Your task to perform on an android device: turn on location history Image 0: 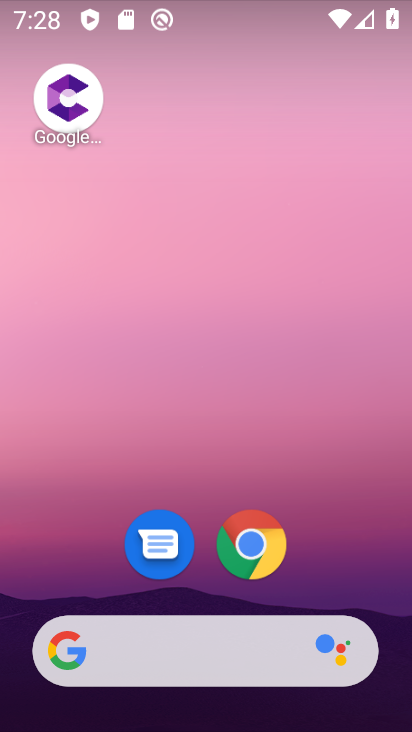
Step 0: drag from (334, 563) to (257, 98)
Your task to perform on an android device: turn on location history Image 1: 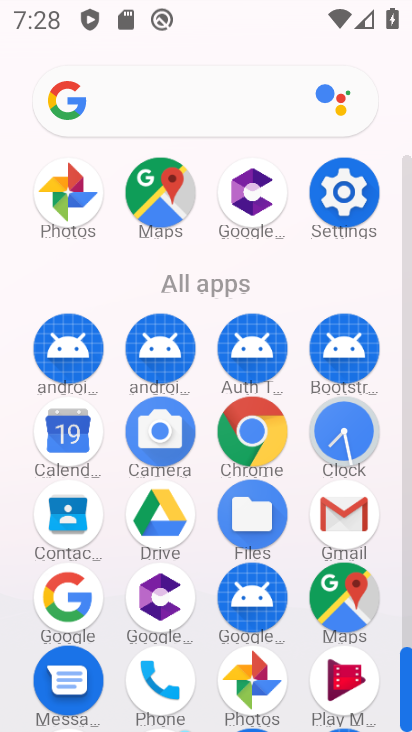
Step 1: click (345, 194)
Your task to perform on an android device: turn on location history Image 2: 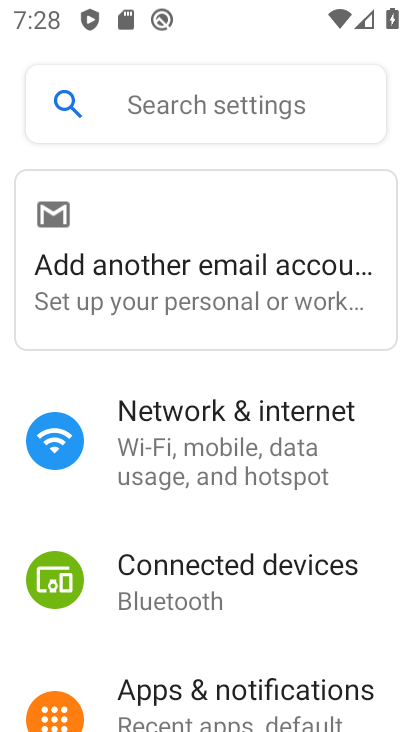
Step 2: drag from (214, 529) to (236, 320)
Your task to perform on an android device: turn on location history Image 3: 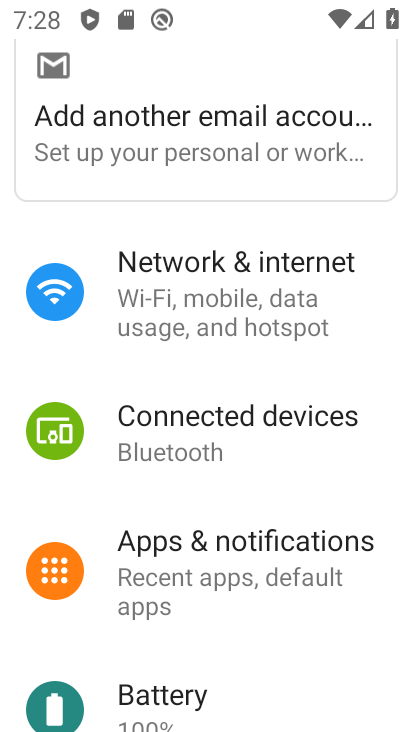
Step 3: drag from (201, 489) to (265, 298)
Your task to perform on an android device: turn on location history Image 4: 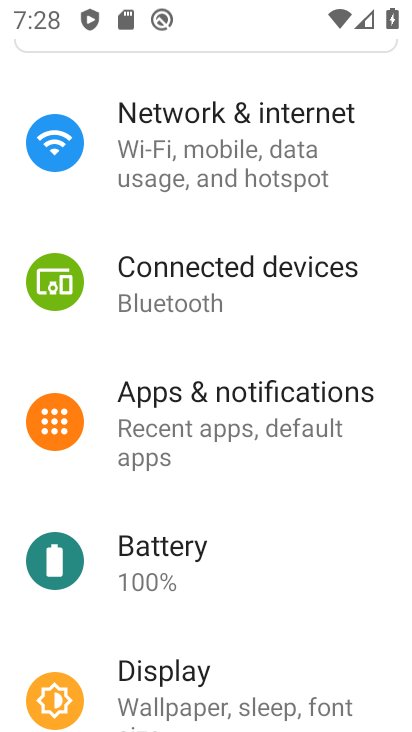
Step 4: drag from (210, 472) to (241, 337)
Your task to perform on an android device: turn on location history Image 5: 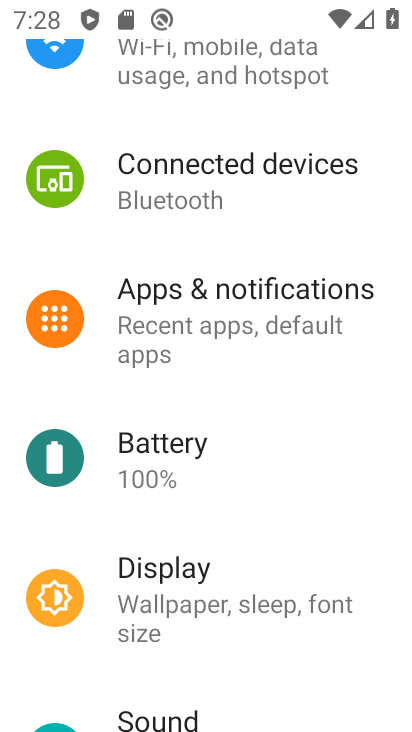
Step 5: drag from (157, 516) to (206, 384)
Your task to perform on an android device: turn on location history Image 6: 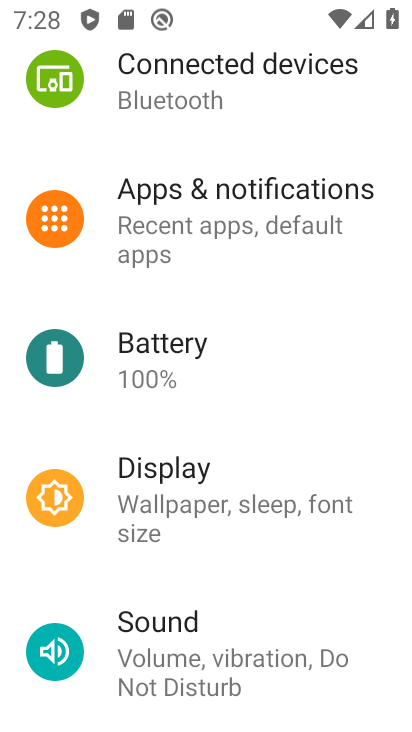
Step 6: drag from (161, 581) to (202, 471)
Your task to perform on an android device: turn on location history Image 7: 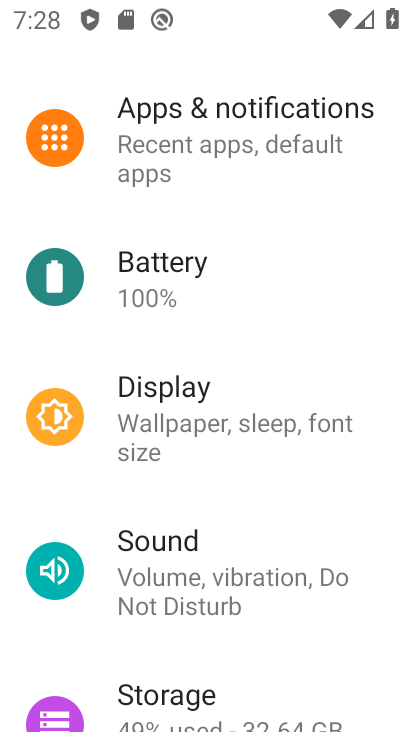
Step 7: drag from (141, 653) to (213, 523)
Your task to perform on an android device: turn on location history Image 8: 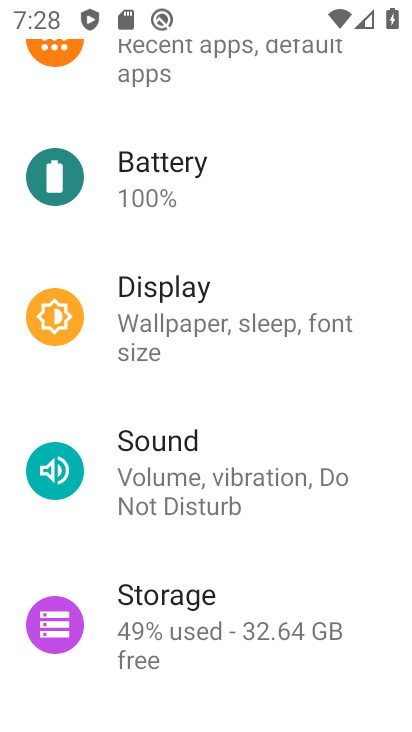
Step 8: drag from (203, 636) to (239, 539)
Your task to perform on an android device: turn on location history Image 9: 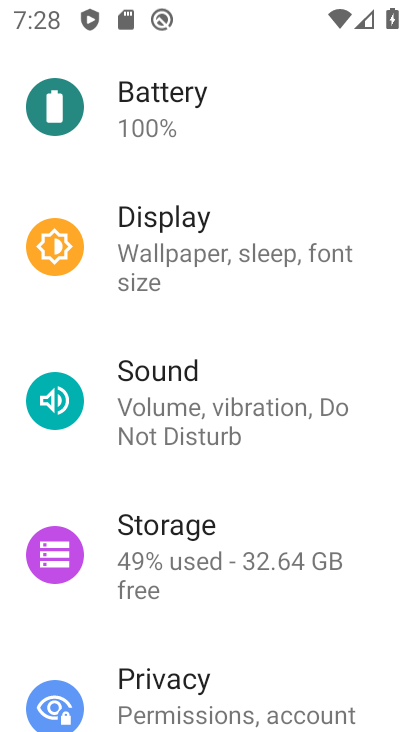
Step 9: click (261, 555)
Your task to perform on an android device: turn on location history Image 10: 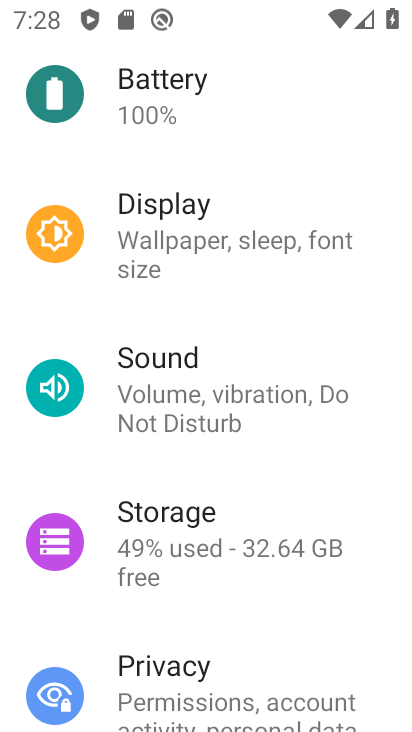
Step 10: drag from (240, 641) to (307, 473)
Your task to perform on an android device: turn on location history Image 11: 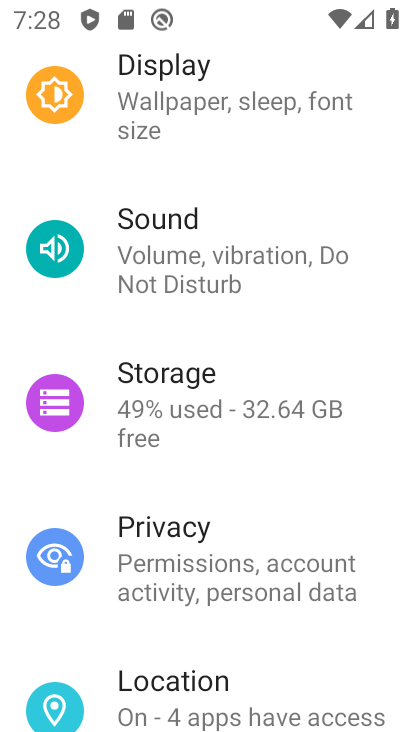
Step 11: drag from (233, 648) to (291, 487)
Your task to perform on an android device: turn on location history Image 12: 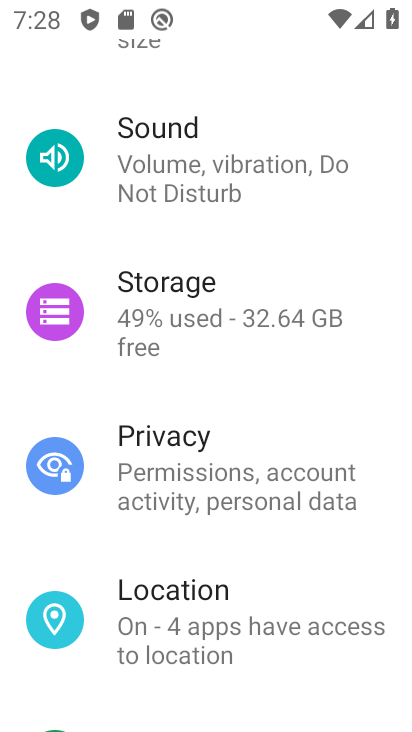
Step 12: click (196, 605)
Your task to perform on an android device: turn on location history Image 13: 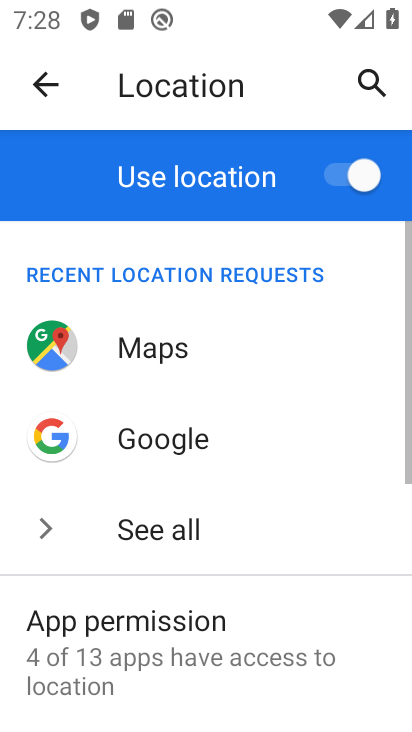
Step 13: drag from (262, 618) to (287, 469)
Your task to perform on an android device: turn on location history Image 14: 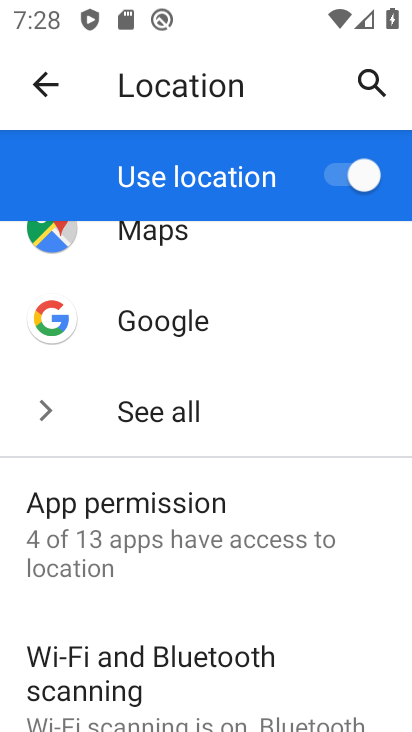
Step 14: drag from (239, 601) to (261, 450)
Your task to perform on an android device: turn on location history Image 15: 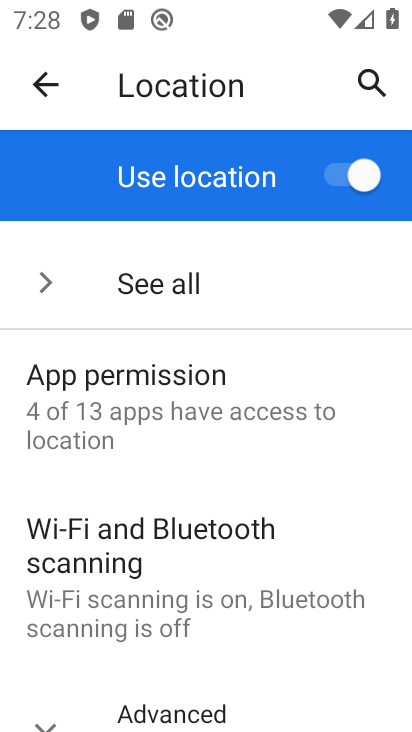
Step 15: drag from (226, 568) to (279, 421)
Your task to perform on an android device: turn on location history Image 16: 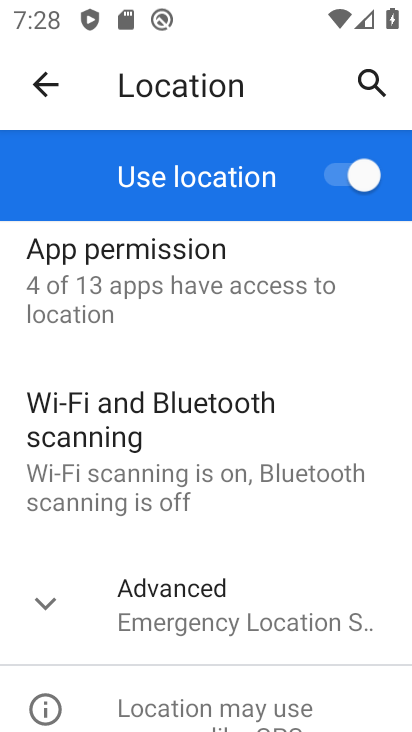
Step 16: click (219, 605)
Your task to perform on an android device: turn on location history Image 17: 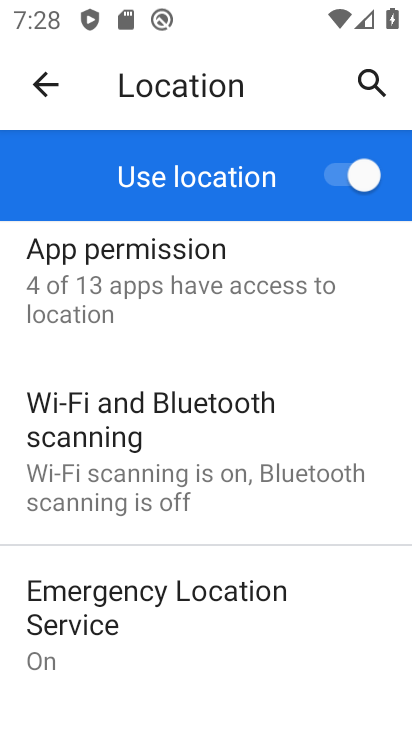
Step 17: drag from (225, 614) to (305, 463)
Your task to perform on an android device: turn on location history Image 18: 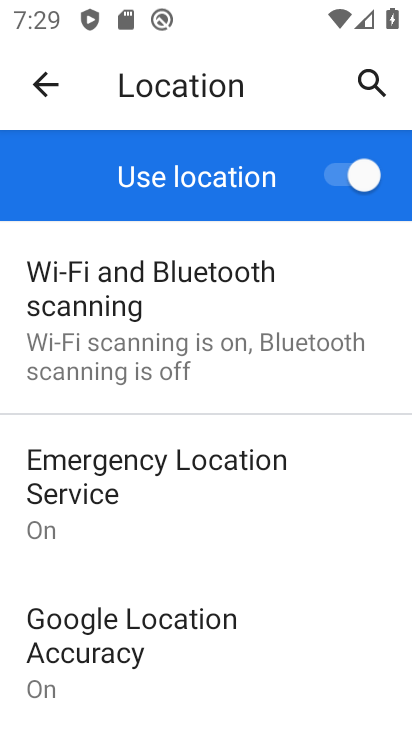
Step 18: drag from (213, 553) to (293, 431)
Your task to perform on an android device: turn on location history Image 19: 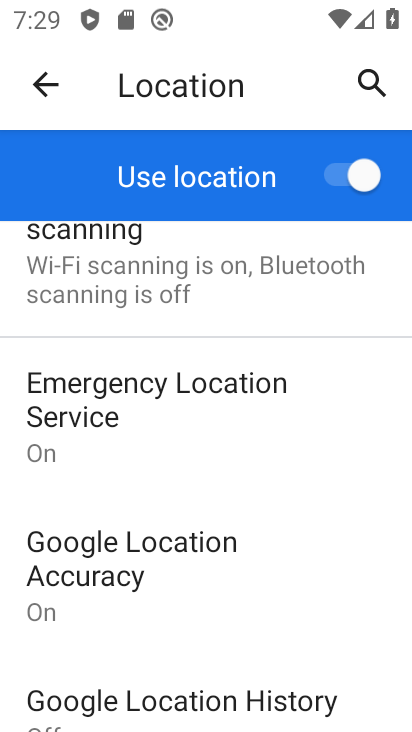
Step 19: drag from (202, 622) to (254, 460)
Your task to perform on an android device: turn on location history Image 20: 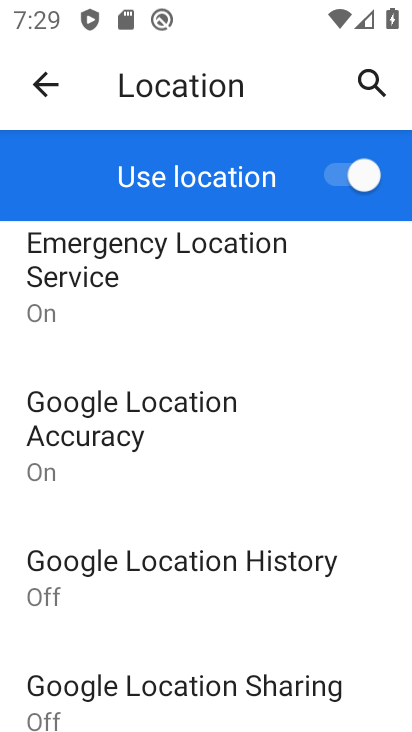
Step 20: click (208, 566)
Your task to perform on an android device: turn on location history Image 21: 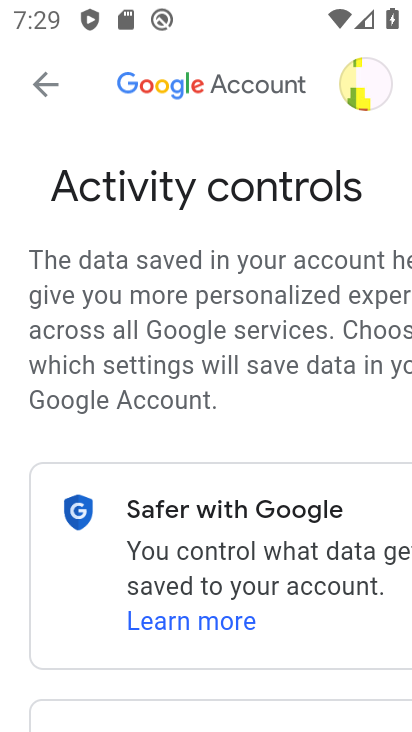
Step 21: task complete